Your task to perform on an android device: Clear all items from cart on newegg. Search for logitech g pro on newegg, select the first entry, and add it to the cart. Image 0: 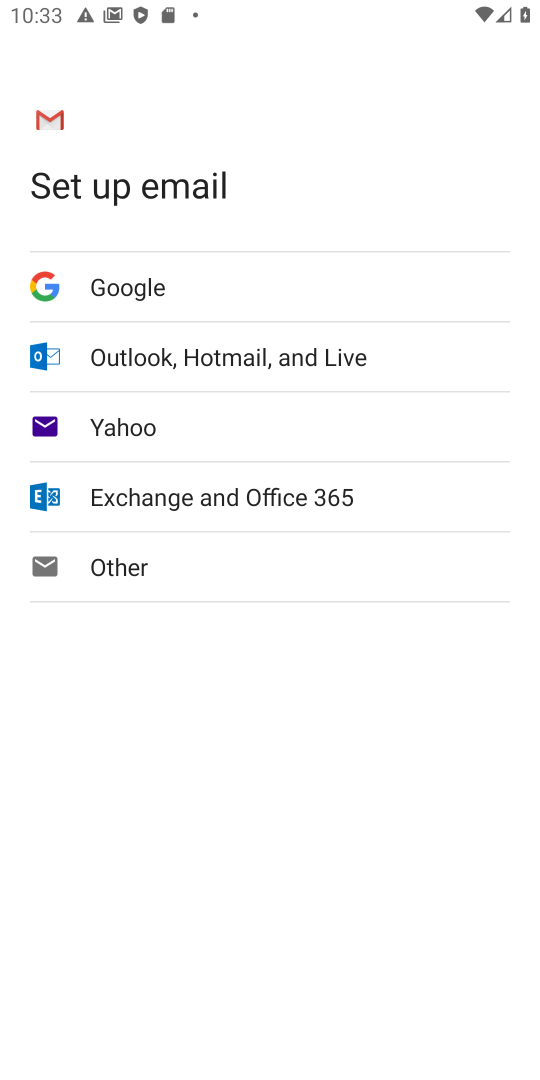
Step 0: press home button
Your task to perform on an android device: Clear all items from cart on newegg. Search for logitech g pro on newegg, select the first entry, and add it to the cart. Image 1: 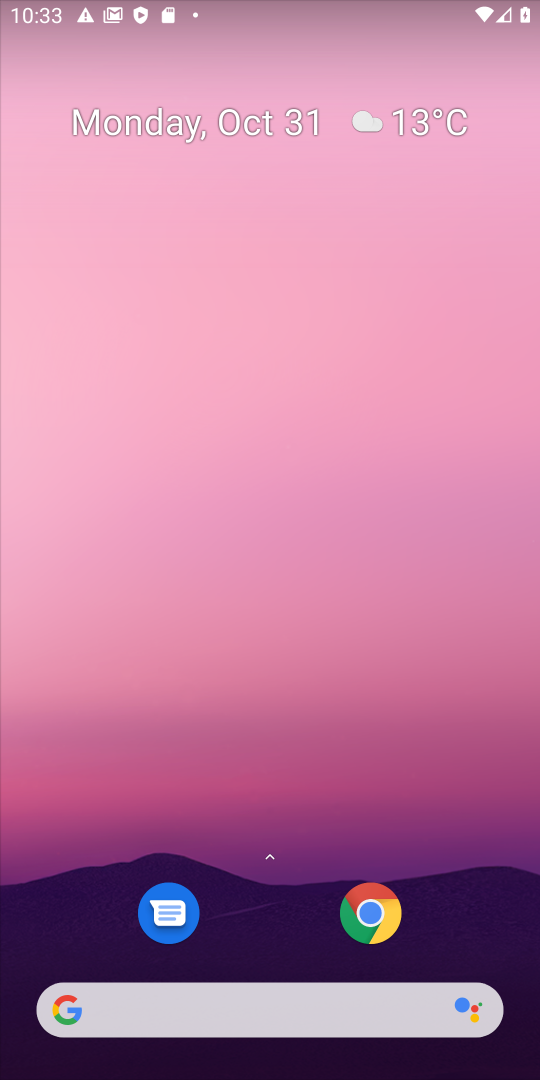
Step 1: click (189, 1025)
Your task to perform on an android device: Clear all items from cart on newegg. Search for logitech g pro on newegg, select the first entry, and add it to the cart. Image 2: 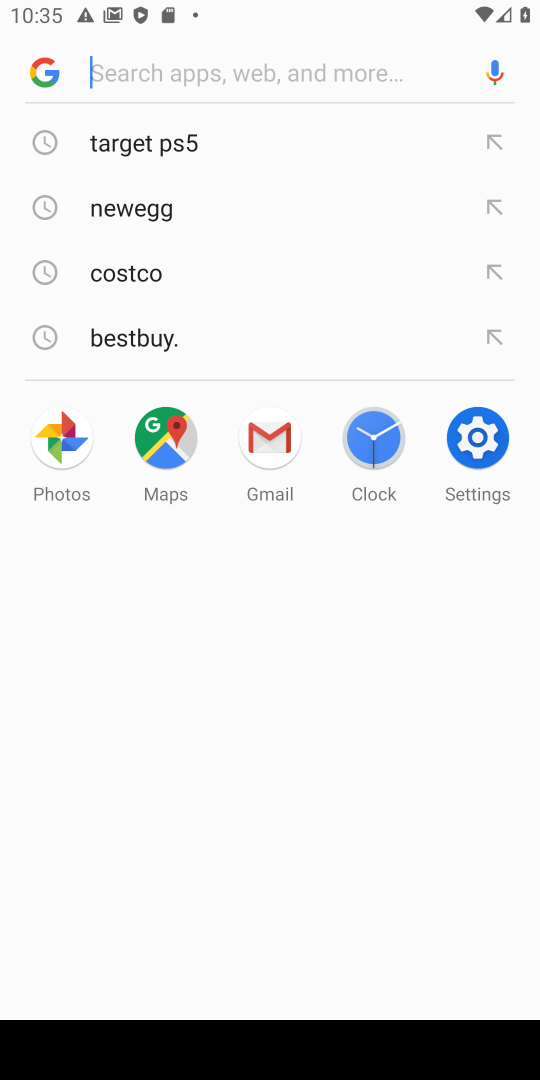
Step 2: press home button
Your task to perform on an android device: Clear all items from cart on newegg. Search for logitech g pro on newegg, select the first entry, and add it to the cart. Image 3: 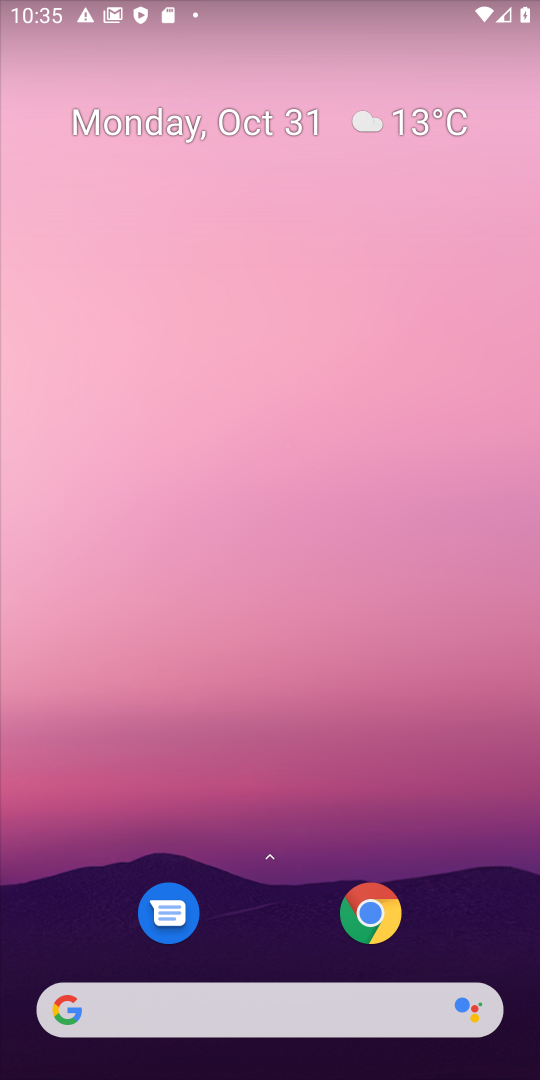
Step 3: click (324, 1016)
Your task to perform on an android device: Clear all items from cart on newegg. Search for logitech g pro on newegg, select the first entry, and add it to the cart. Image 4: 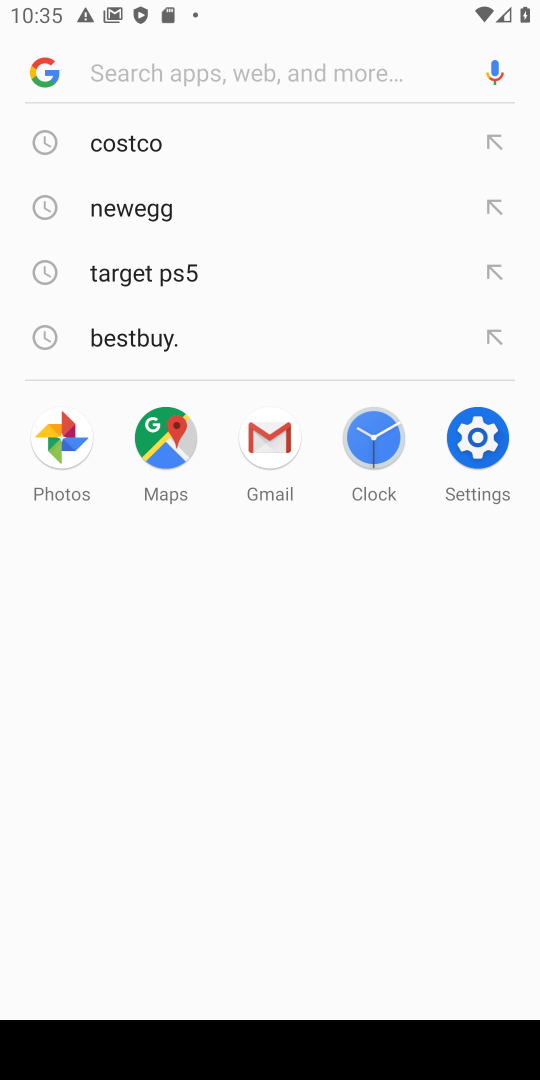
Step 4: type "newegg"
Your task to perform on an android device: Clear all items from cart on newegg. Search for logitech g pro on newegg, select the first entry, and add it to the cart. Image 5: 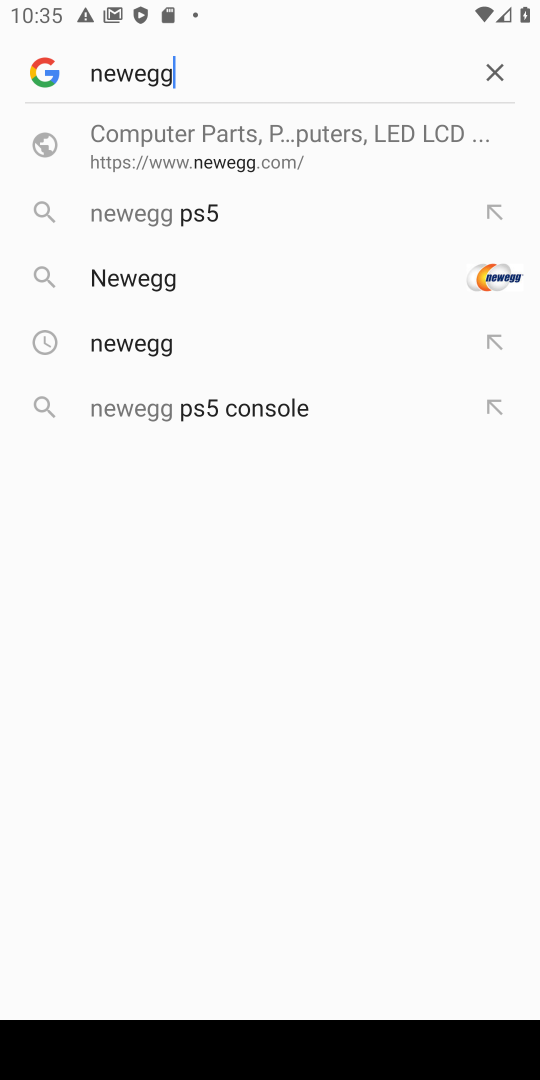
Step 5: click (202, 159)
Your task to perform on an android device: Clear all items from cart on newegg. Search for logitech g pro on newegg, select the first entry, and add it to the cart. Image 6: 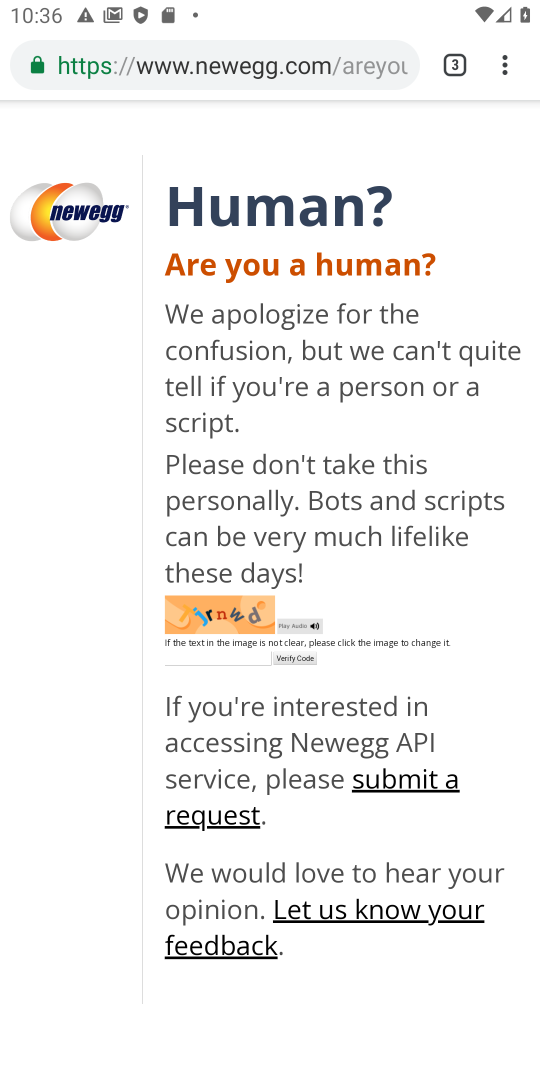
Step 6: click (217, 667)
Your task to perform on an android device: Clear all items from cart on newegg. Search for logitech g pro on newegg, select the first entry, and add it to the cart. Image 7: 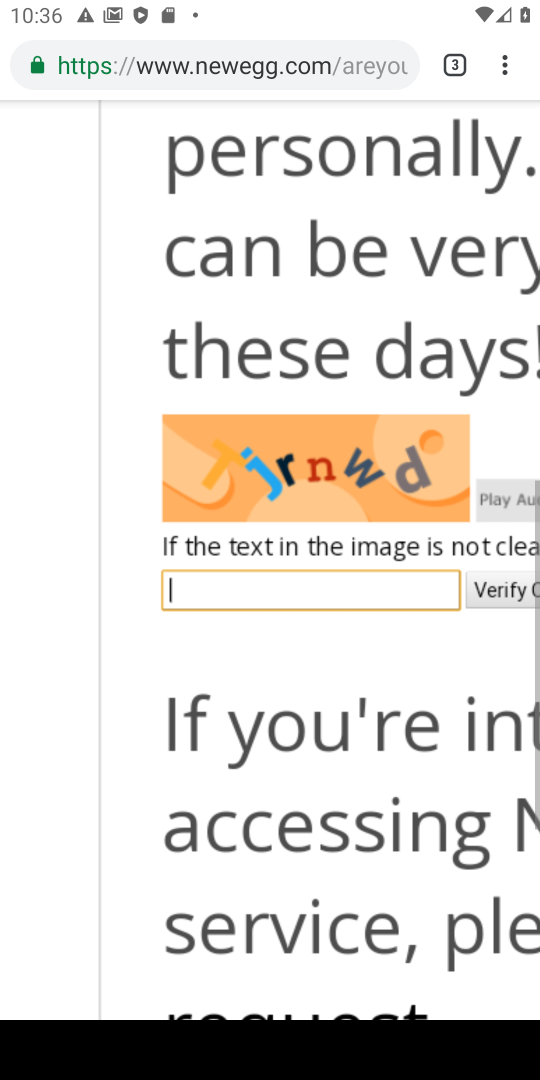
Step 7: click (214, 666)
Your task to perform on an android device: Clear all items from cart on newegg. Search for logitech g pro on newegg, select the first entry, and add it to the cart. Image 8: 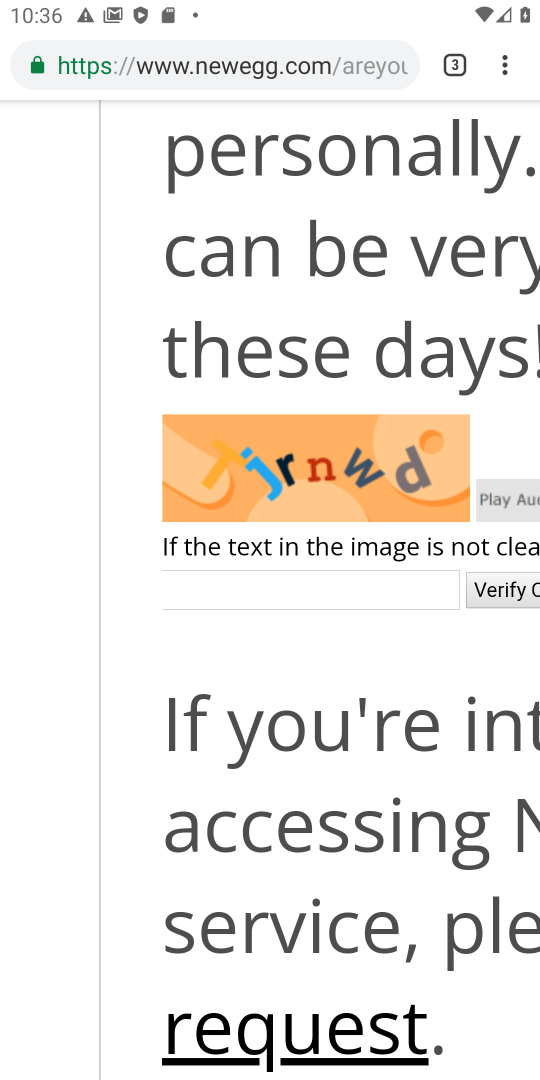
Step 8: click (302, 578)
Your task to perform on an android device: Clear all items from cart on newegg. Search for logitech g pro on newegg, select the first entry, and add it to the cart. Image 9: 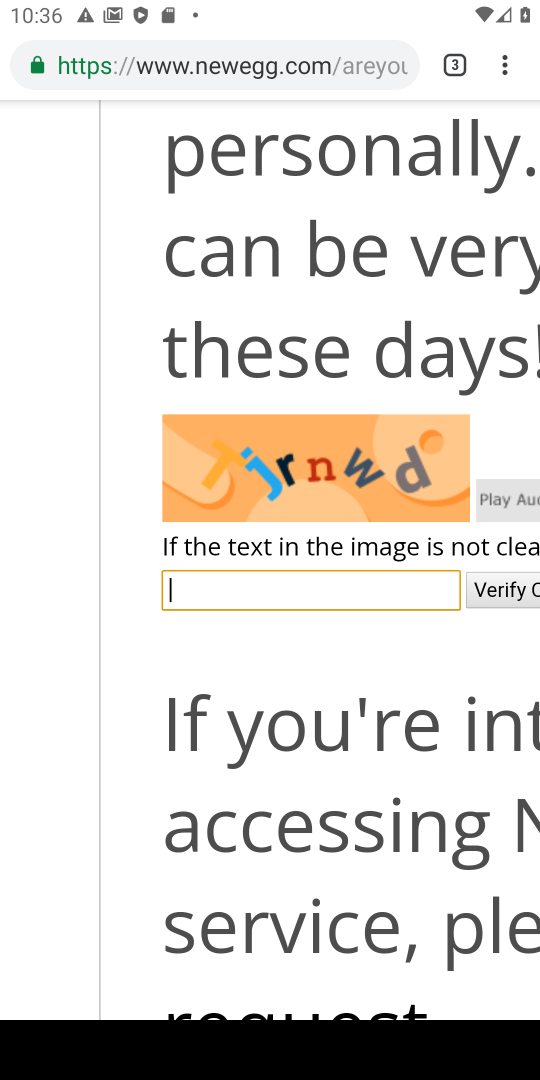
Step 9: type "jrnwd"
Your task to perform on an android device: Clear all items from cart on newegg. Search for logitech g pro on newegg, select the first entry, and add it to the cart. Image 10: 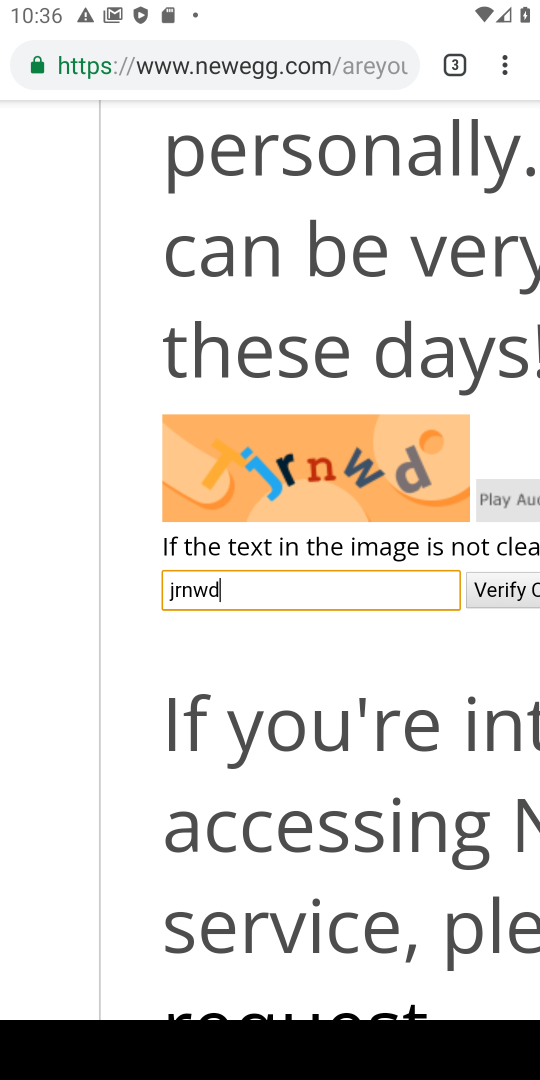
Step 10: click (512, 587)
Your task to perform on an android device: Clear all items from cart on newegg. Search for logitech g pro on newegg, select the first entry, and add it to the cart. Image 11: 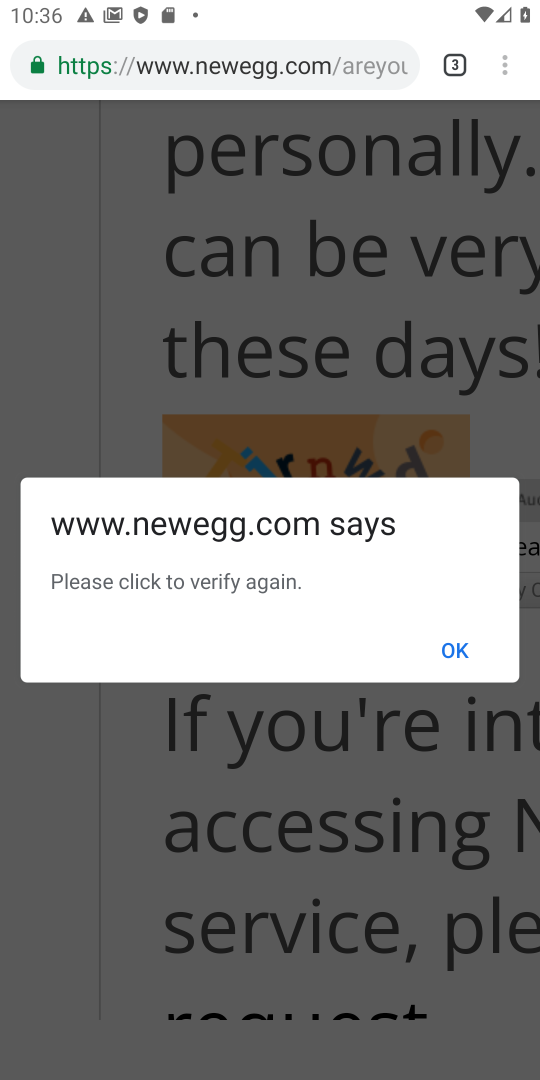
Step 11: click (460, 655)
Your task to perform on an android device: Clear all items from cart on newegg. Search for logitech g pro on newegg, select the first entry, and add it to the cart. Image 12: 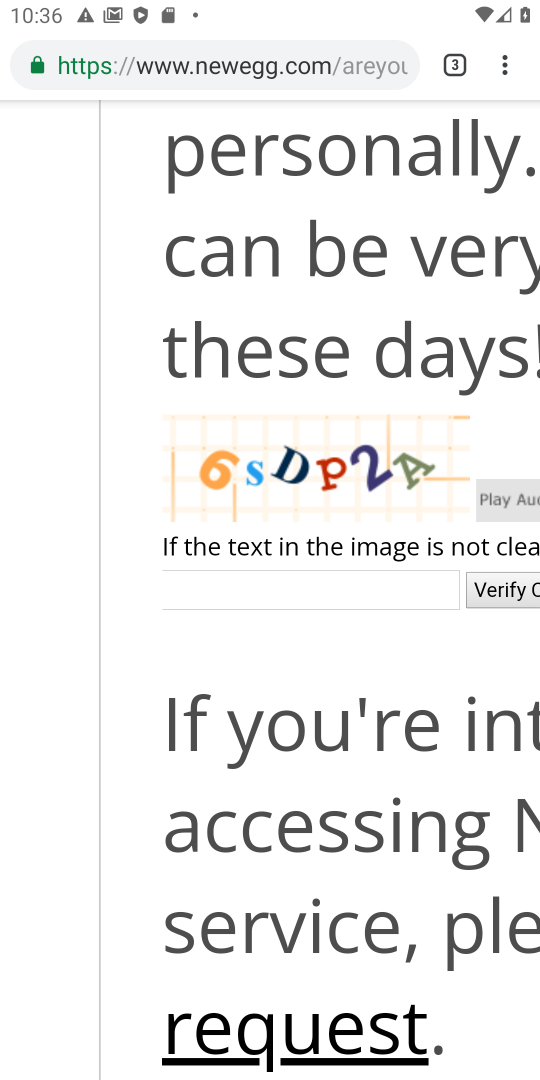
Step 12: task complete